Your task to perform on an android device: see creations saved in the google photos Image 0: 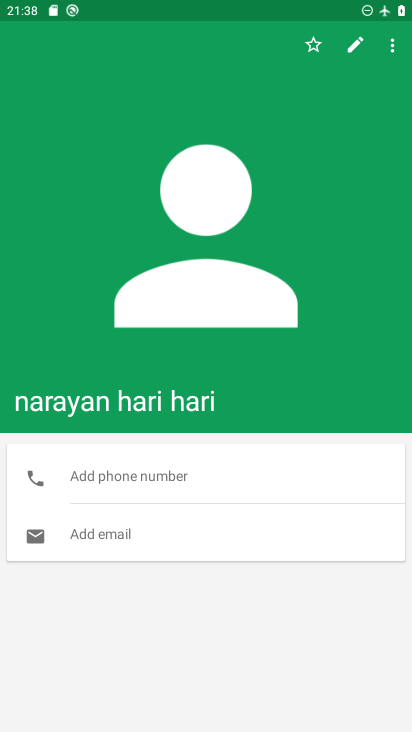
Step 0: press home button
Your task to perform on an android device: see creations saved in the google photos Image 1: 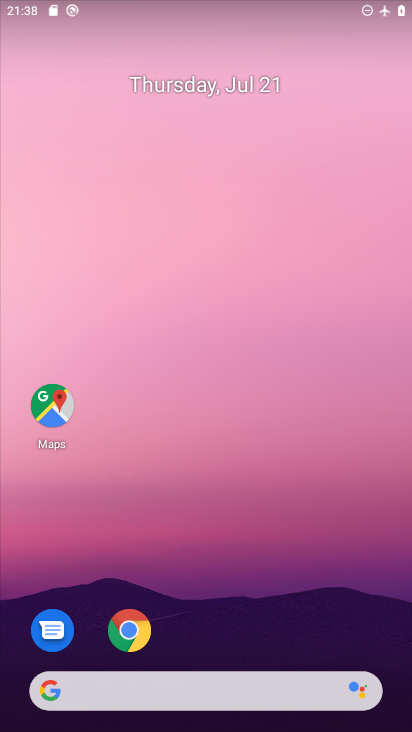
Step 1: drag from (286, 617) to (220, 156)
Your task to perform on an android device: see creations saved in the google photos Image 2: 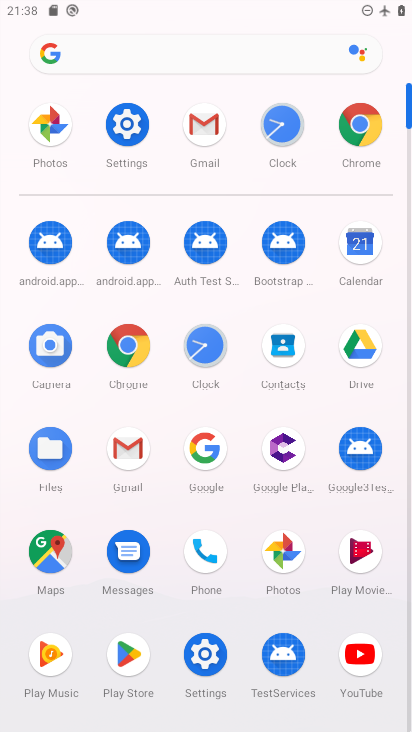
Step 2: click (287, 541)
Your task to perform on an android device: see creations saved in the google photos Image 3: 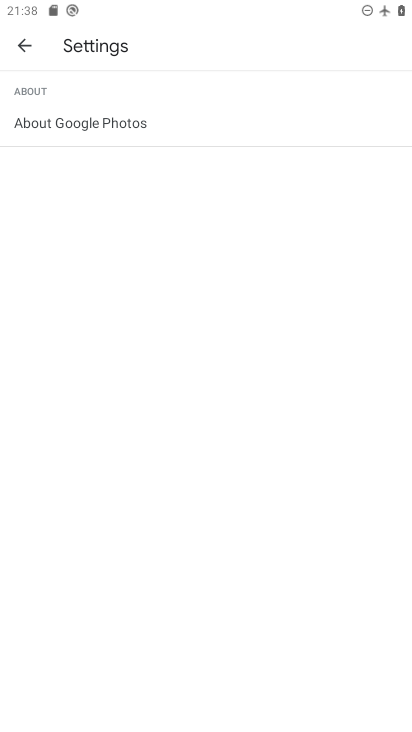
Step 3: click (30, 48)
Your task to perform on an android device: see creations saved in the google photos Image 4: 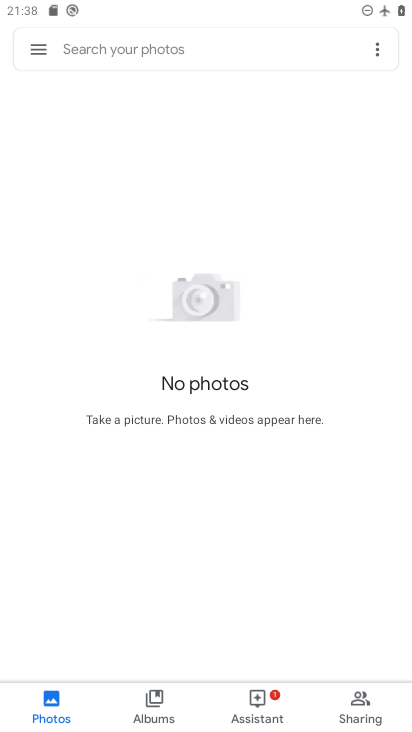
Step 4: click (167, 717)
Your task to perform on an android device: see creations saved in the google photos Image 5: 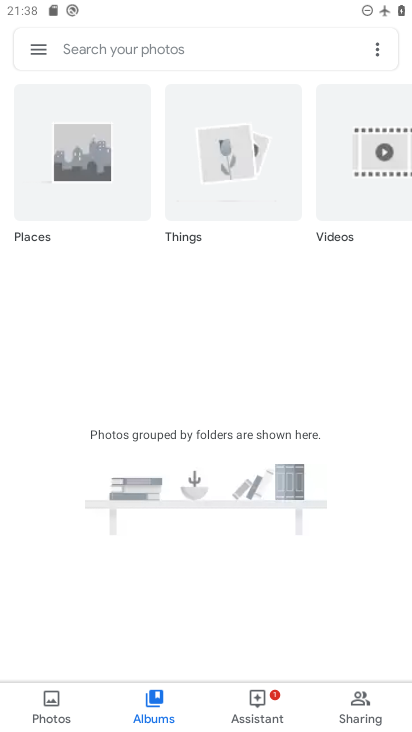
Step 5: click (256, 705)
Your task to perform on an android device: see creations saved in the google photos Image 6: 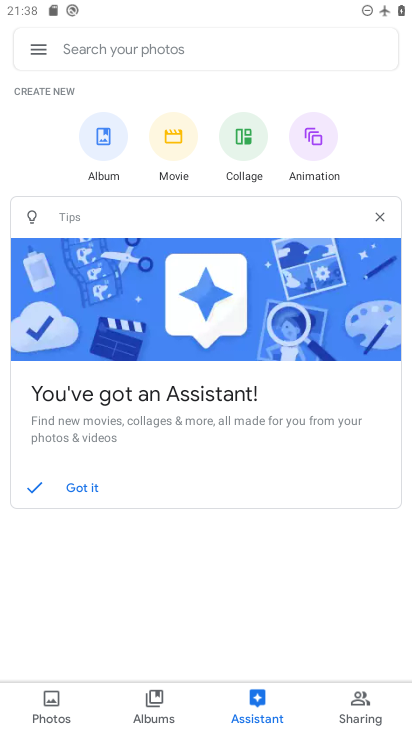
Step 6: click (354, 698)
Your task to perform on an android device: see creations saved in the google photos Image 7: 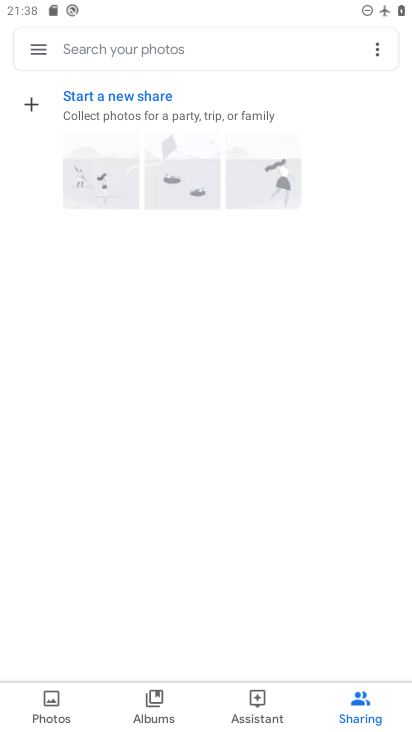
Step 7: task complete